Your task to perform on an android device: Find coffee shops on Maps Image 0: 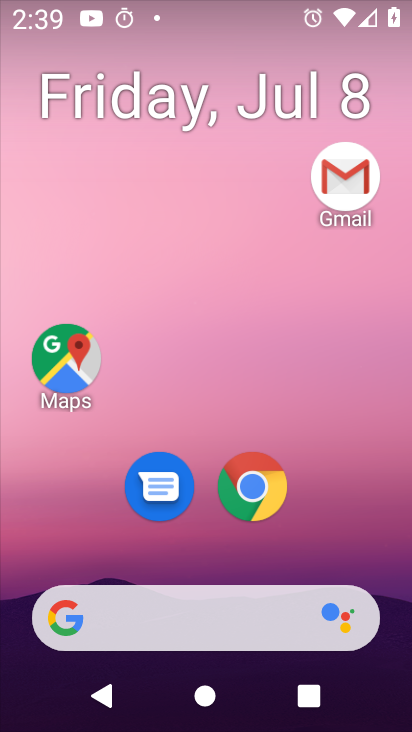
Step 0: drag from (341, 499) to (365, 105)
Your task to perform on an android device: Find coffee shops on Maps Image 1: 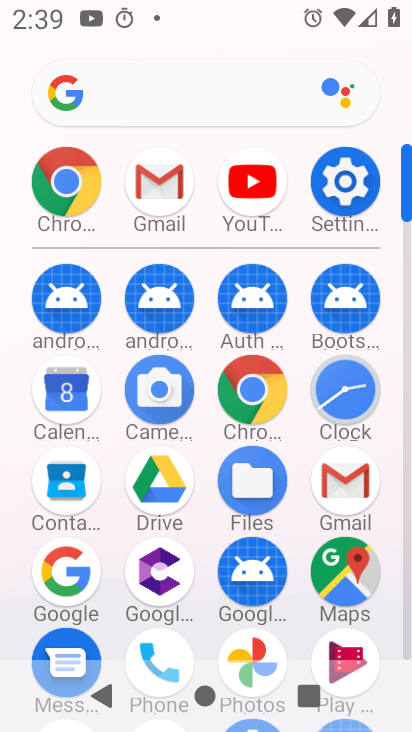
Step 1: click (369, 582)
Your task to perform on an android device: Find coffee shops on Maps Image 2: 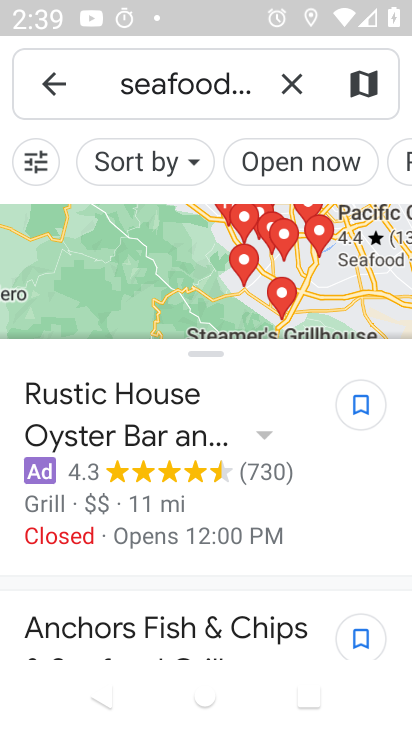
Step 2: press back button
Your task to perform on an android device: Find coffee shops on Maps Image 3: 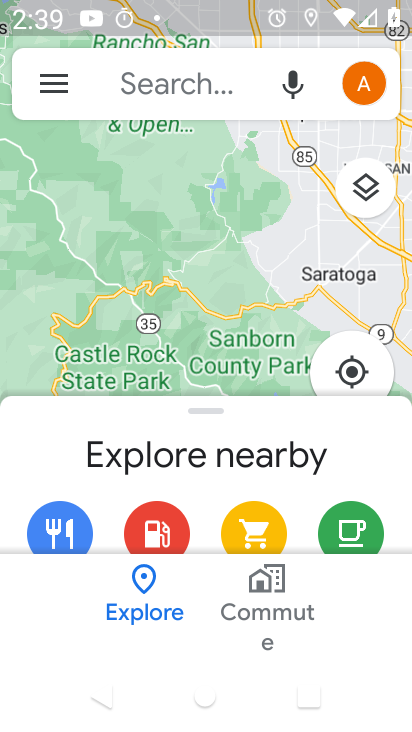
Step 3: click (200, 85)
Your task to perform on an android device: Find coffee shops on Maps Image 4: 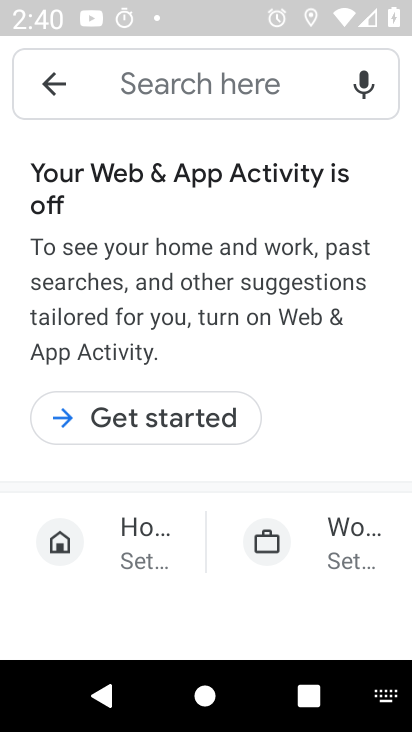
Step 4: type "coffee"
Your task to perform on an android device: Find coffee shops on Maps Image 5: 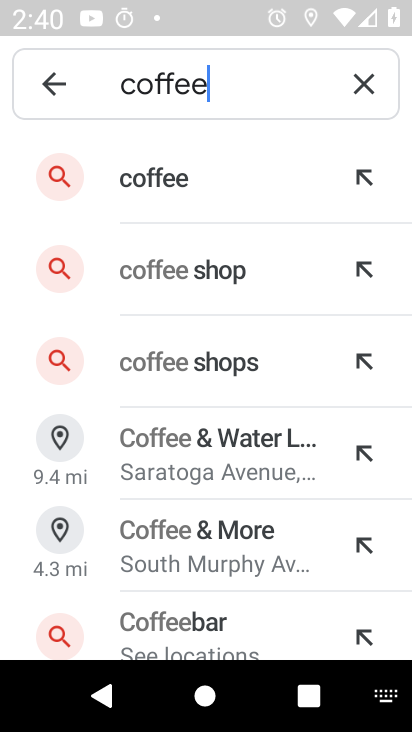
Step 5: click (200, 184)
Your task to perform on an android device: Find coffee shops on Maps Image 6: 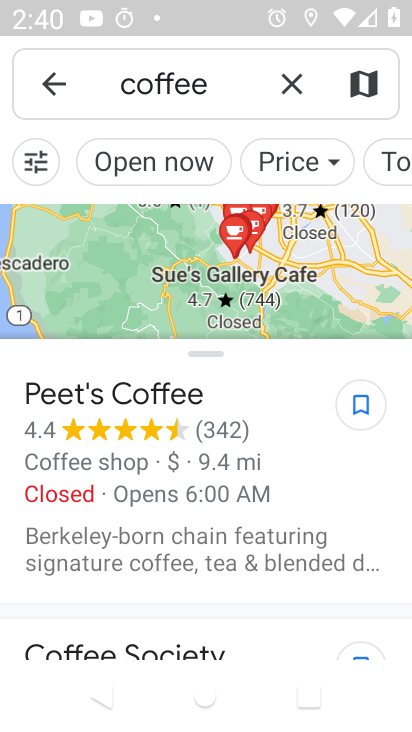
Step 6: task complete